Your task to perform on an android device: Open Google Chrome and click the shortcut for Amazon.com Image 0: 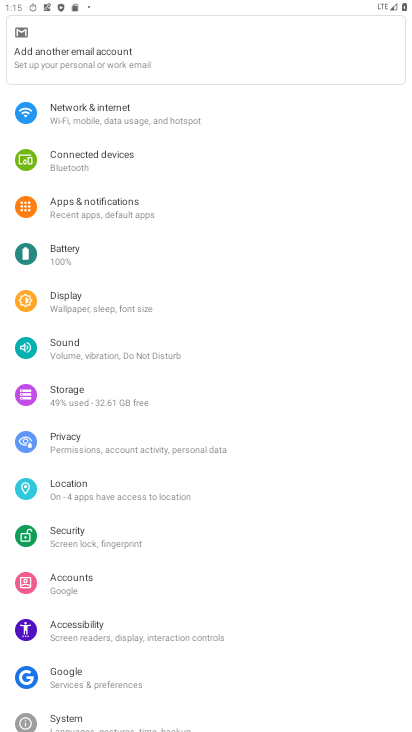
Step 0: press home button
Your task to perform on an android device: Open Google Chrome and click the shortcut for Amazon.com Image 1: 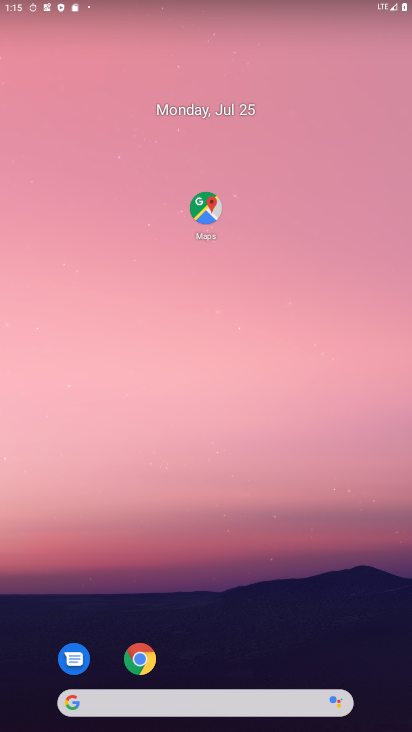
Step 1: click (129, 661)
Your task to perform on an android device: Open Google Chrome and click the shortcut for Amazon.com Image 2: 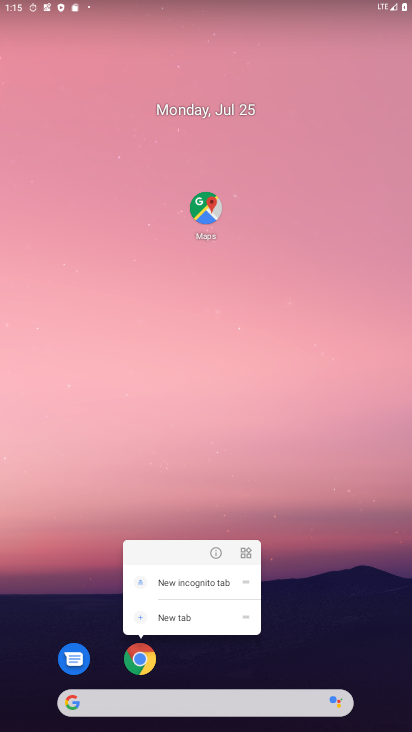
Step 2: click (135, 662)
Your task to perform on an android device: Open Google Chrome and click the shortcut for Amazon.com Image 3: 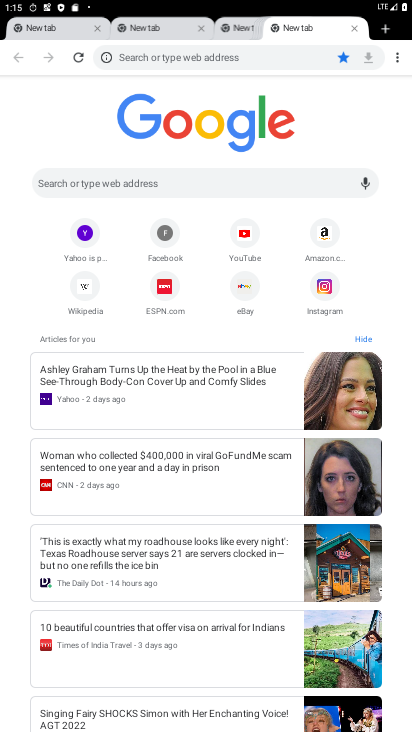
Step 3: click (331, 233)
Your task to perform on an android device: Open Google Chrome and click the shortcut for Amazon.com Image 4: 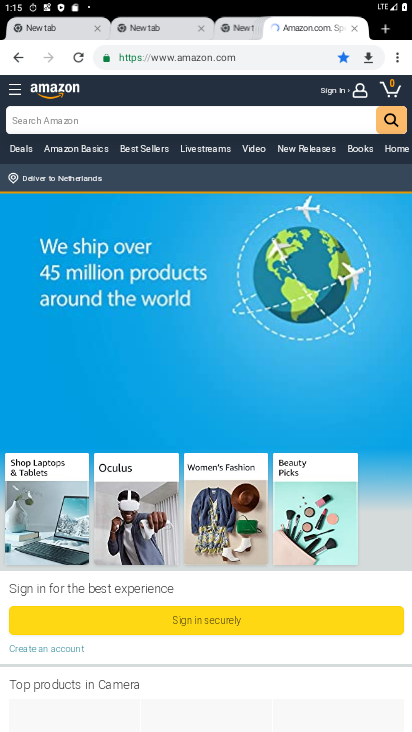
Step 4: task complete